Your task to perform on an android device: Turn off the flashlight Image 0: 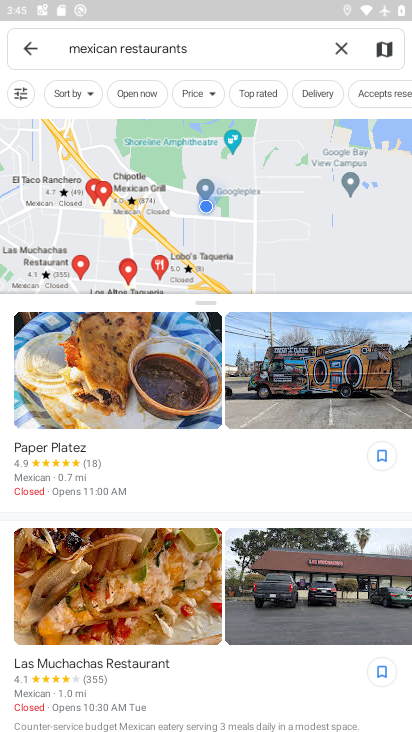
Step 0: press home button
Your task to perform on an android device: Turn off the flashlight Image 1: 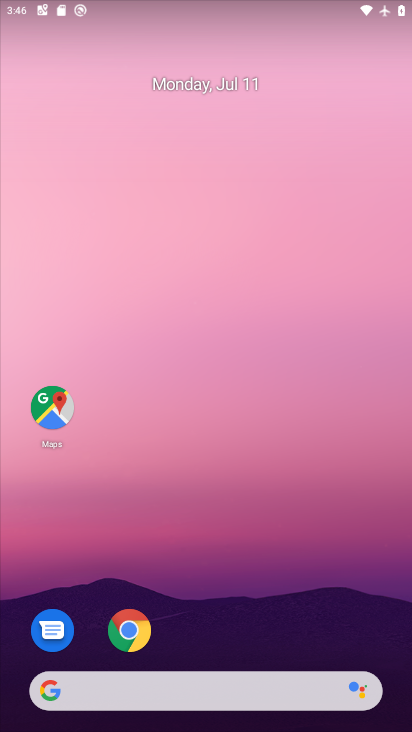
Step 1: drag from (225, 660) to (207, 195)
Your task to perform on an android device: Turn off the flashlight Image 2: 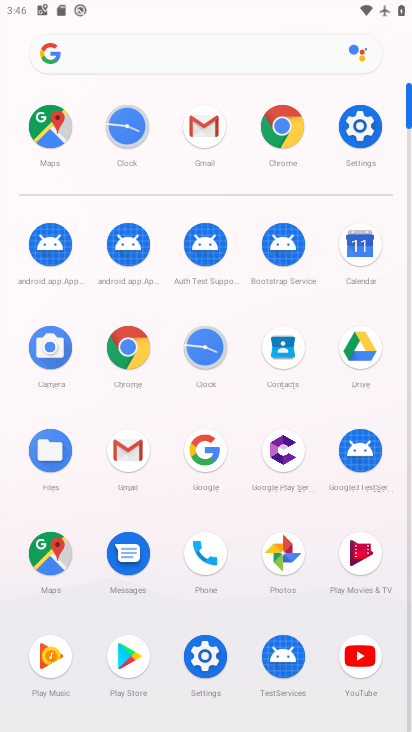
Step 2: click (342, 139)
Your task to perform on an android device: Turn off the flashlight Image 3: 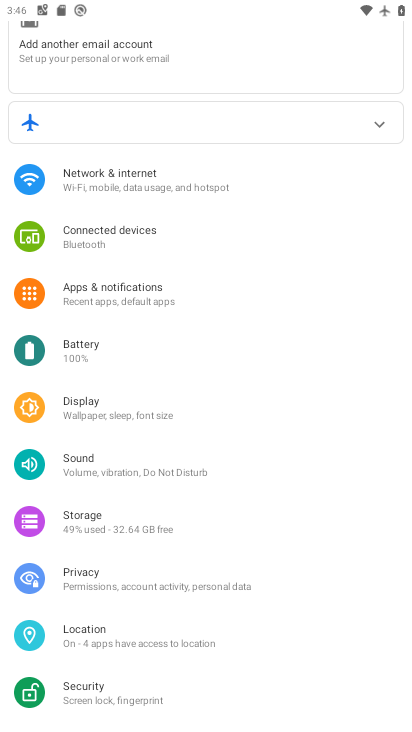
Step 3: click (282, 236)
Your task to perform on an android device: Turn off the flashlight Image 4: 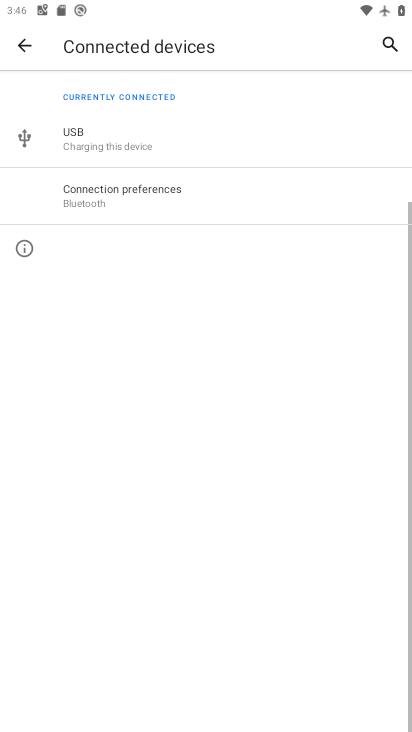
Step 4: task complete